Your task to perform on an android device: Open Chrome and go to settings Image 0: 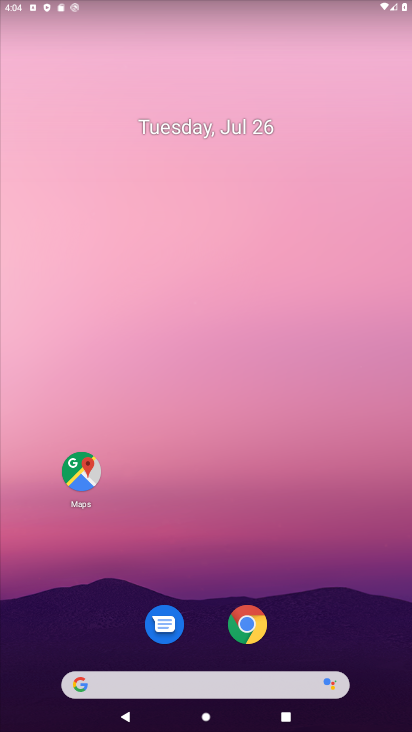
Step 0: drag from (181, 678) to (283, 40)
Your task to perform on an android device: Open Chrome and go to settings Image 1: 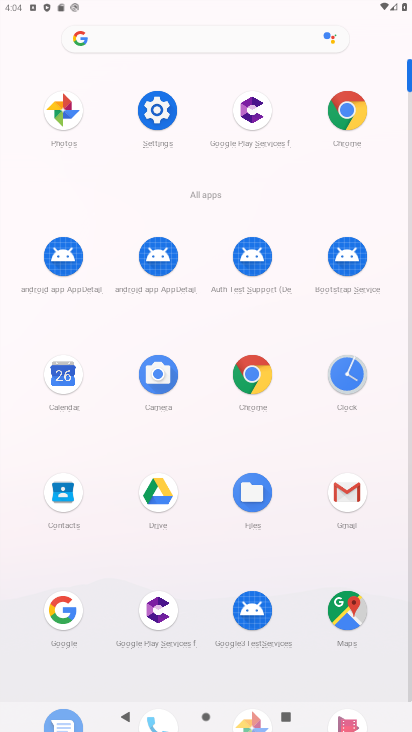
Step 1: click (242, 374)
Your task to perform on an android device: Open Chrome and go to settings Image 2: 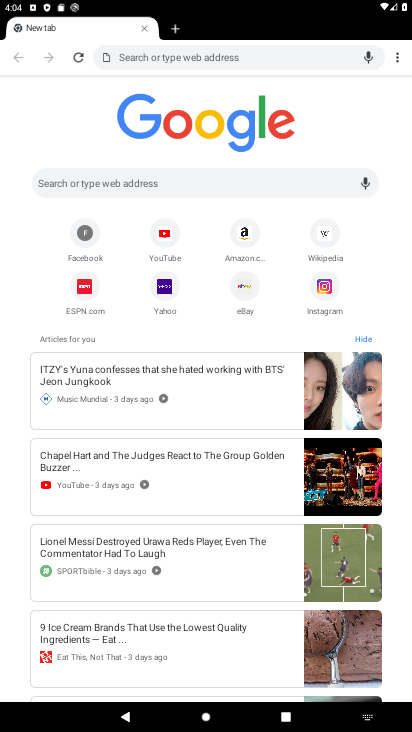
Step 2: click (396, 54)
Your task to perform on an android device: Open Chrome and go to settings Image 3: 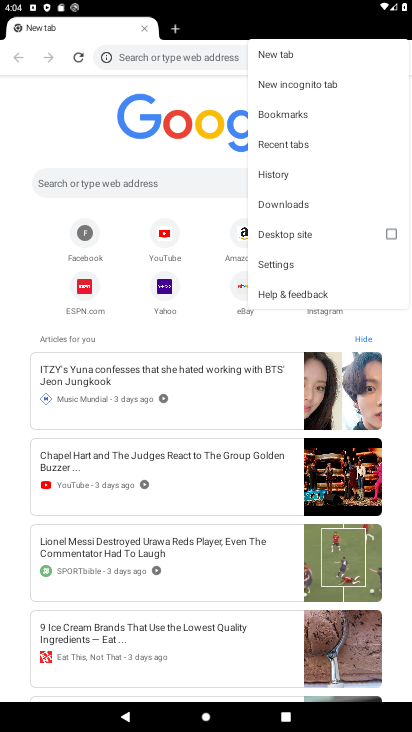
Step 3: click (293, 257)
Your task to perform on an android device: Open Chrome and go to settings Image 4: 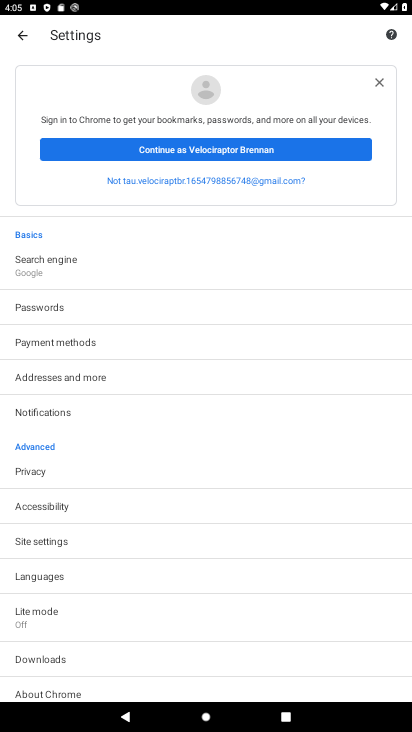
Step 4: task complete